Your task to perform on an android device: Open network settings Image 0: 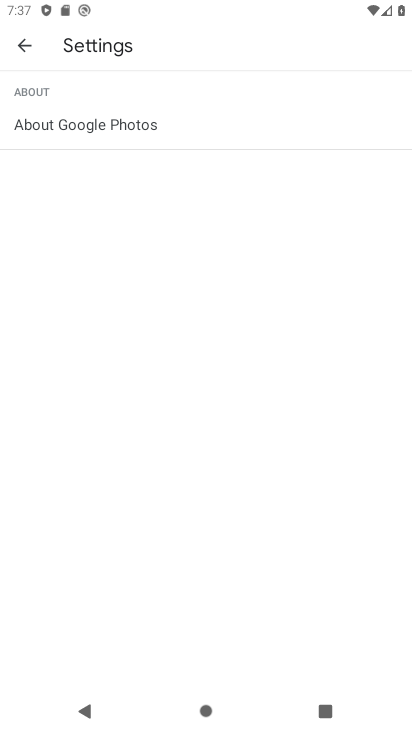
Step 0: press home button
Your task to perform on an android device: Open network settings Image 1: 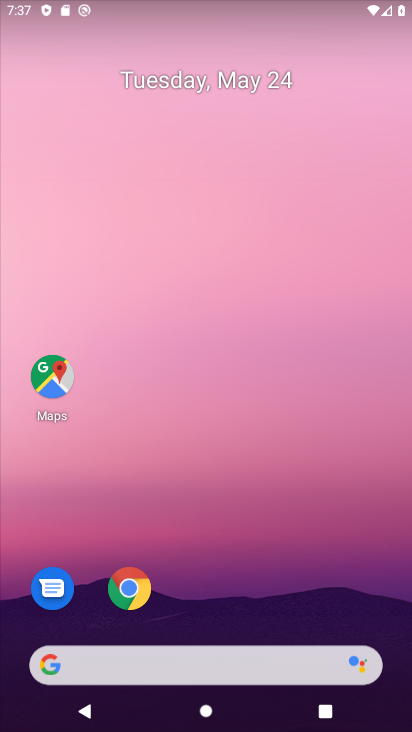
Step 1: drag from (246, 581) to (272, 93)
Your task to perform on an android device: Open network settings Image 2: 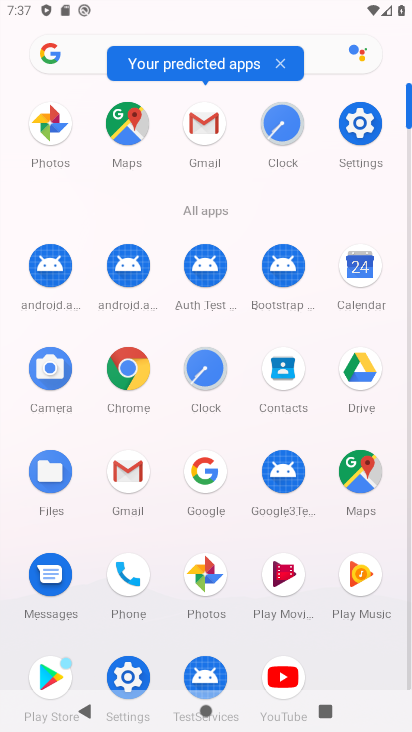
Step 2: click (356, 136)
Your task to perform on an android device: Open network settings Image 3: 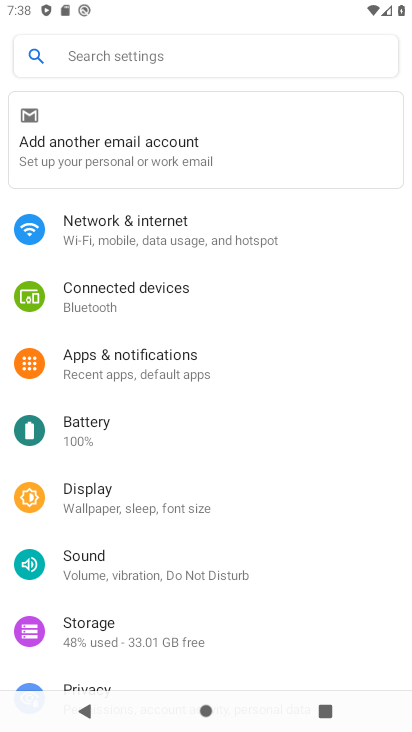
Step 3: click (116, 240)
Your task to perform on an android device: Open network settings Image 4: 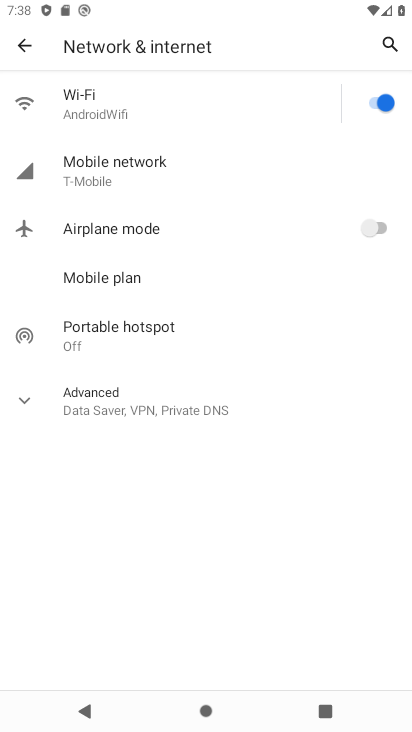
Step 4: click (164, 166)
Your task to perform on an android device: Open network settings Image 5: 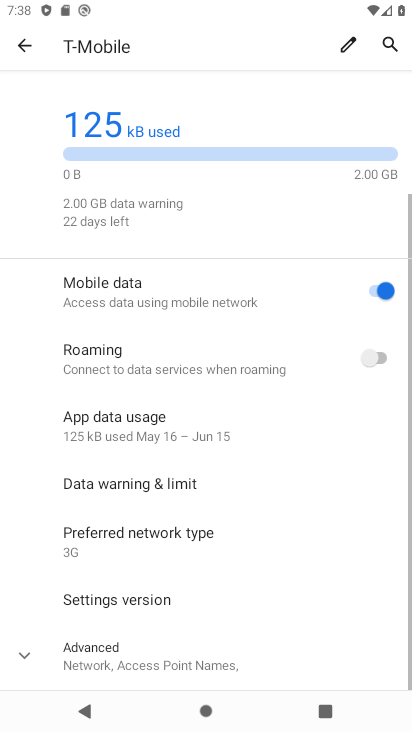
Step 5: task complete